Your task to perform on an android device: Search for pizza restaurants on Maps Image 0: 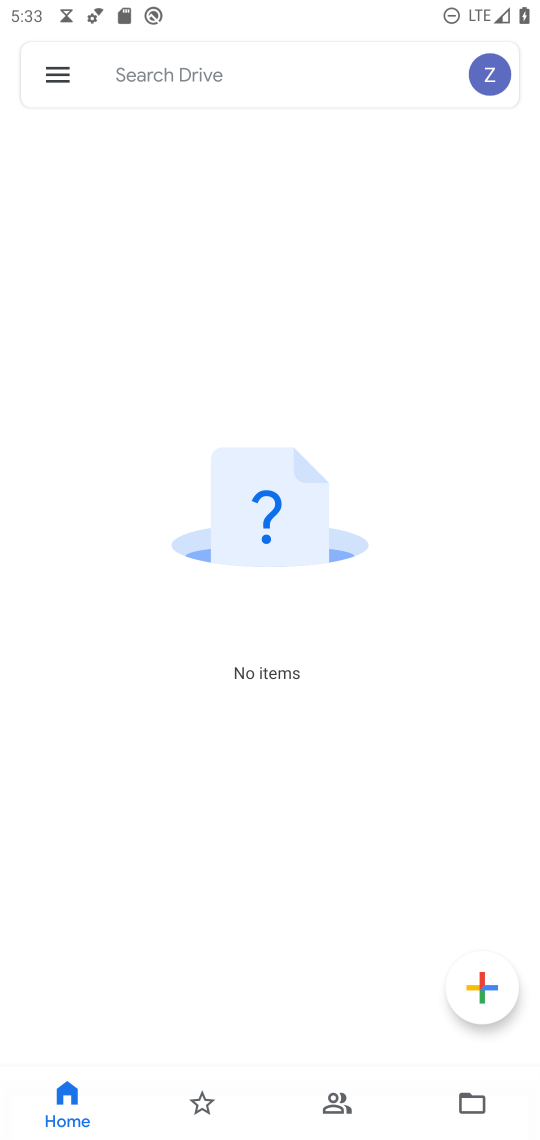
Step 0: press home button
Your task to perform on an android device: Search for pizza restaurants on Maps Image 1: 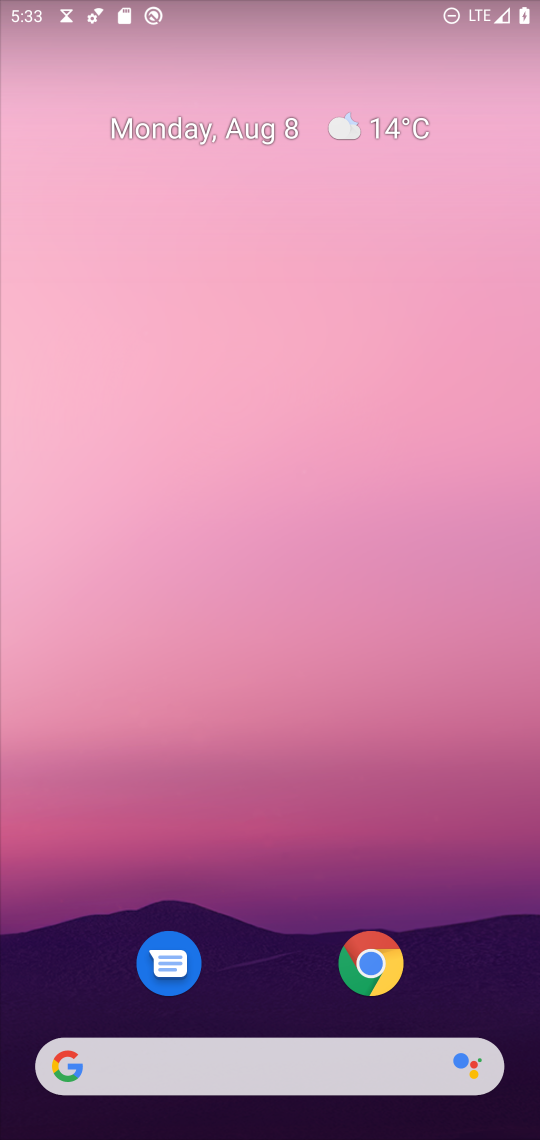
Step 1: drag from (243, 840) to (141, 58)
Your task to perform on an android device: Search for pizza restaurants on Maps Image 2: 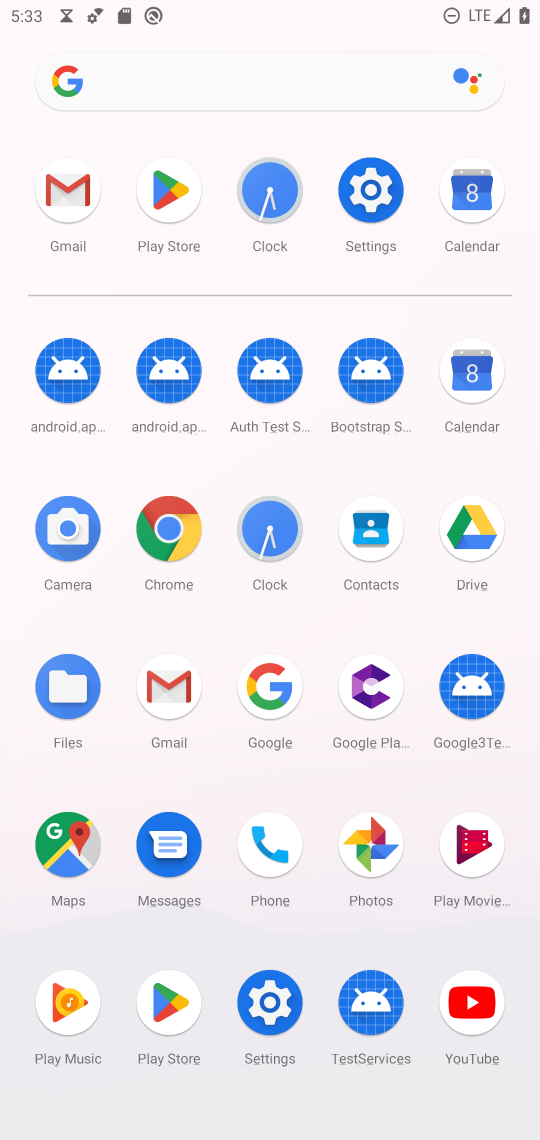
Step 2: click (78, 837)
Your task to perform on an android device: Search for pizza restaurants on Maps Image 3: 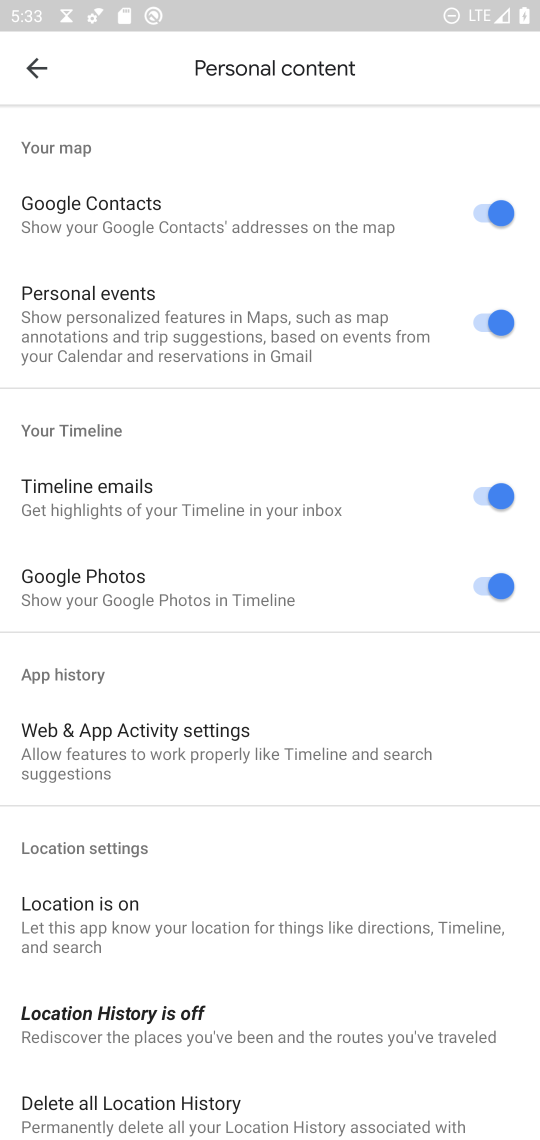
Step 3: click (34, 84)
Your task to perform on an android device: Search for pizza restaurants on Maps Image 4: 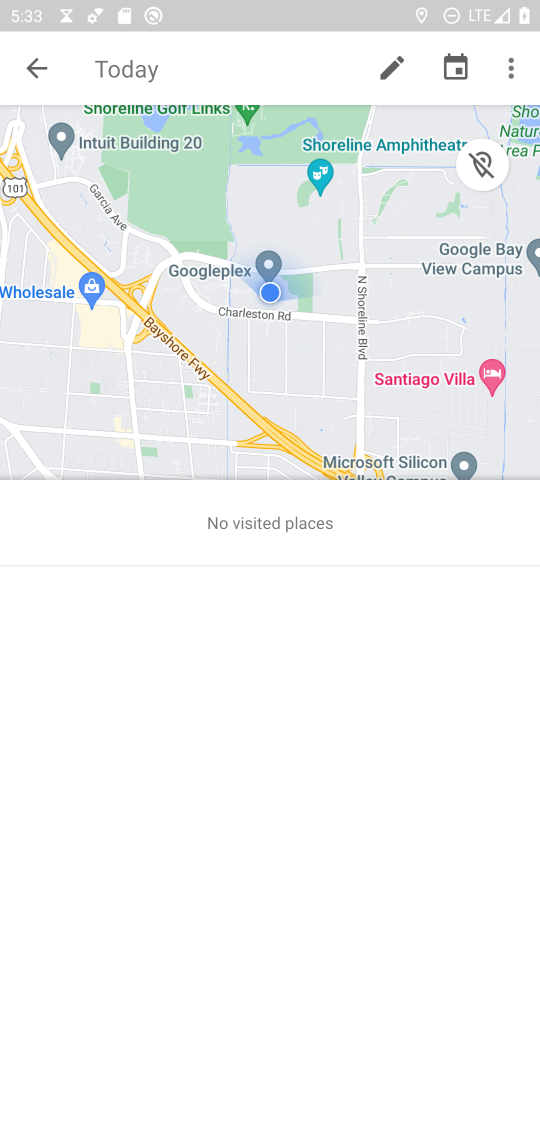
Step 4: click (38, 61)
Your task to perform on an android device: Search for pizza restaurants on Maps Image 5: 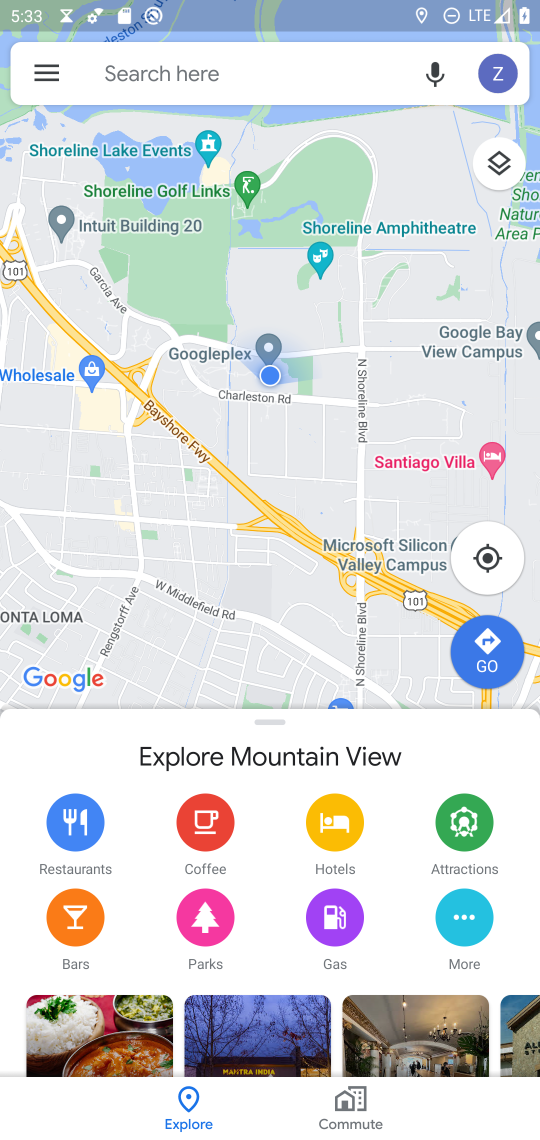
Step 5: click (178, 73)
Your task to perform on an android device: Search for pizza restaurants on Maps Image 6: 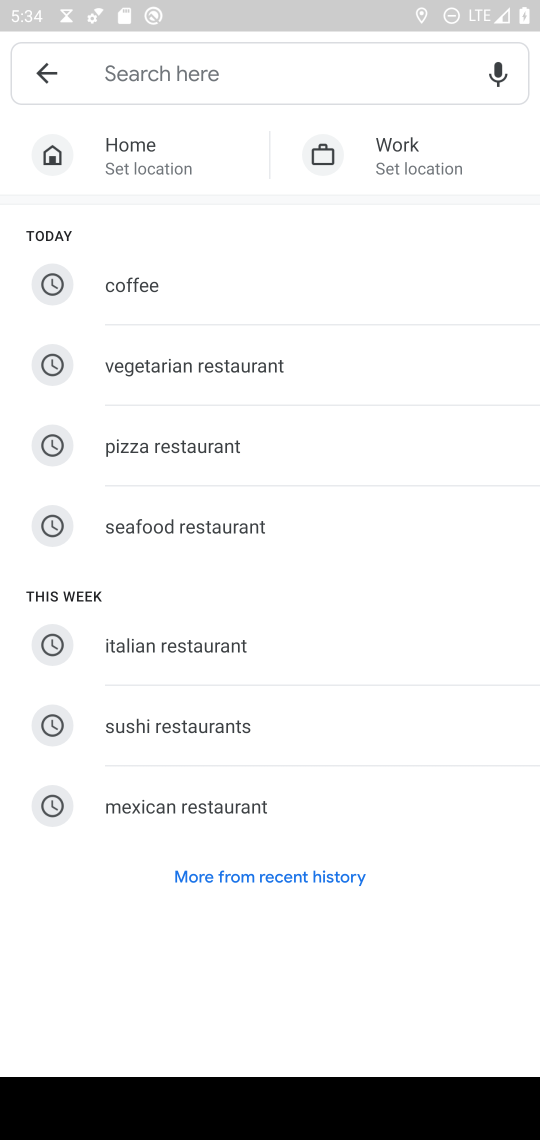
Step 6: type "pizza restaurants"
Your task to perform on an android device: Search for pizza restaurants on Maps Image 7: 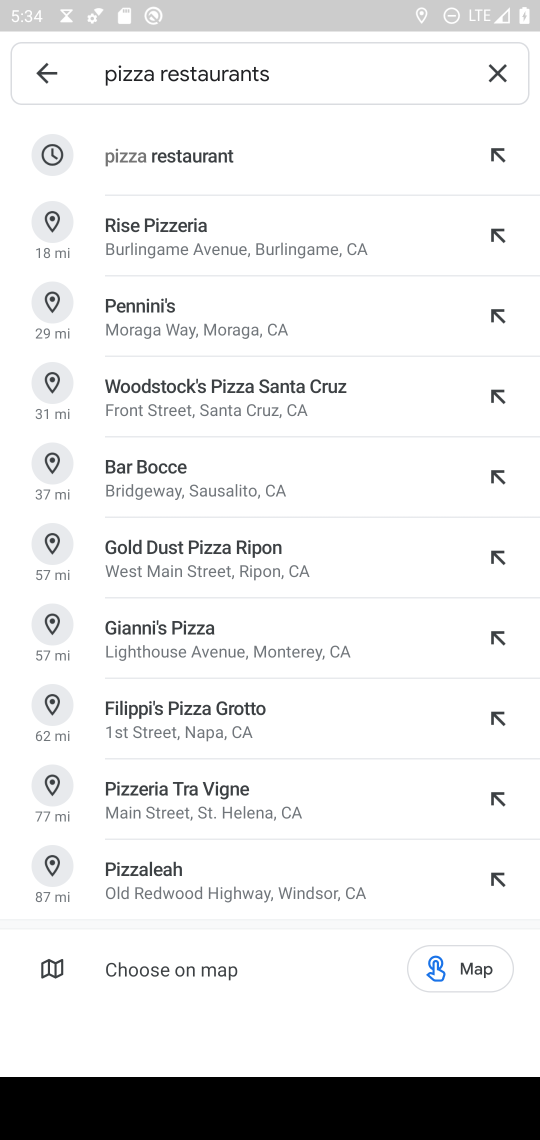
Step 7: click (284, 142)
Your task to perform on an android device: Search for pizza restaurants on Maps Image 8: 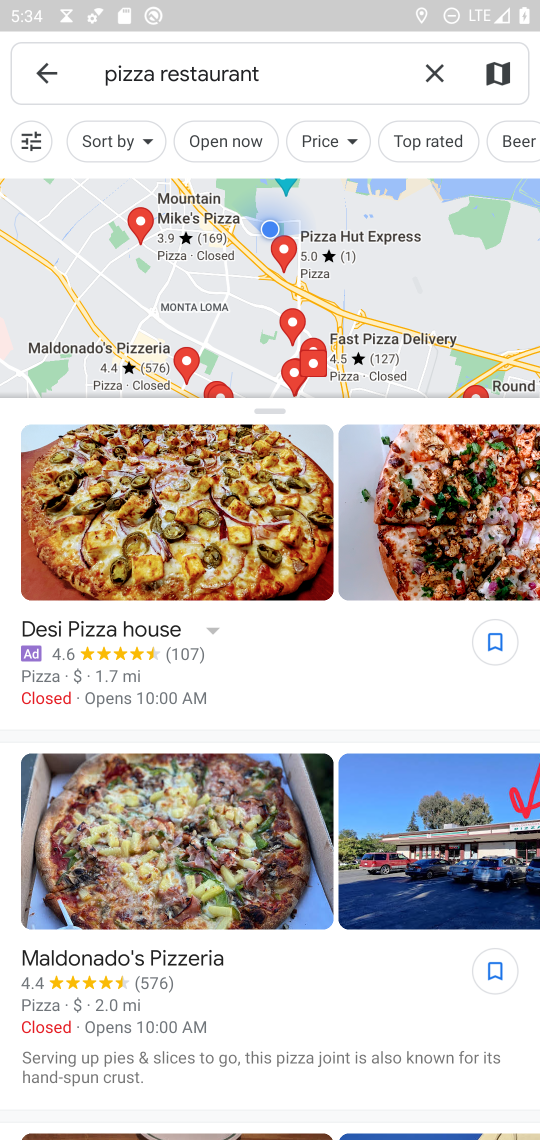
Step 8: task complete